Your task to perform on an android device: Open Google Chrome and open the bookmarks view Image 0: 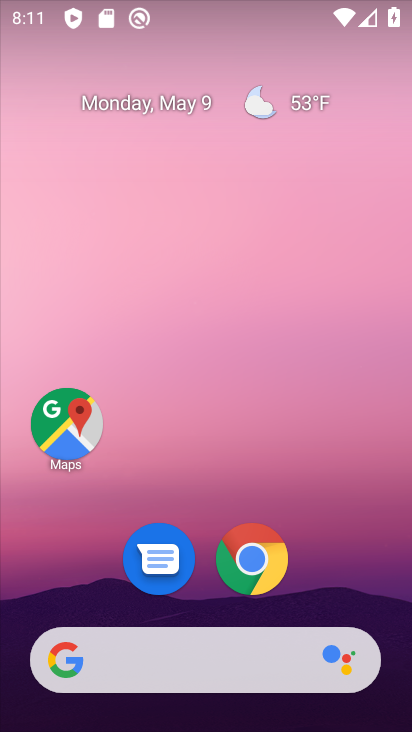
Step 0: drag from (364, 538) to (217, 2)
Your task to perform on an android device: Open Google Chrome and open the bookmarks view Image 1: 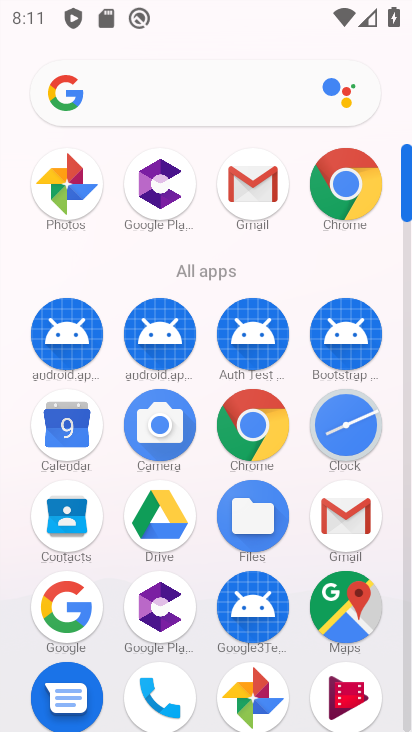
Step 1: click (339, 192)
Your task to perform on an android device: Open Google Chrome and open the bookmarks view Image 2: 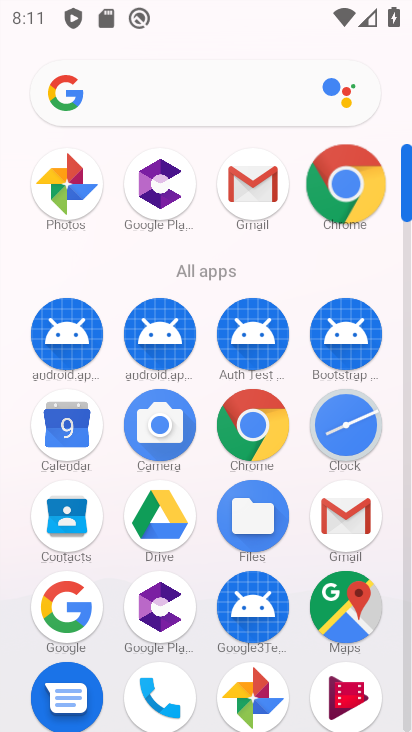
Step 2: click (339, 192)
Your task to perform on an android device: Open Google Chrome and open the bookmarks view Image 3: 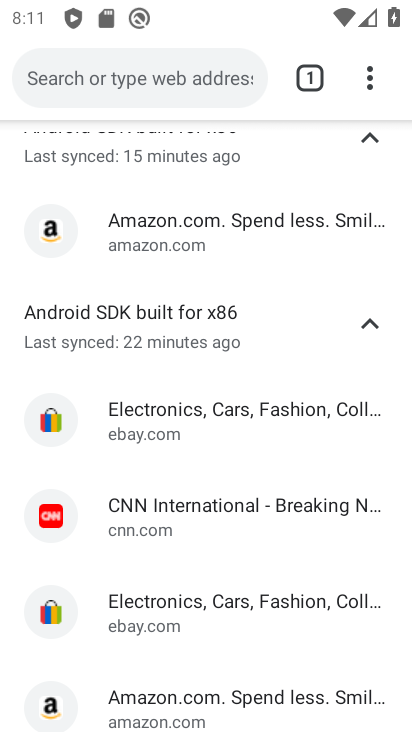
Step 3: task complete